Your task to perform on an android device: empty trash in the gmail app Image 0: 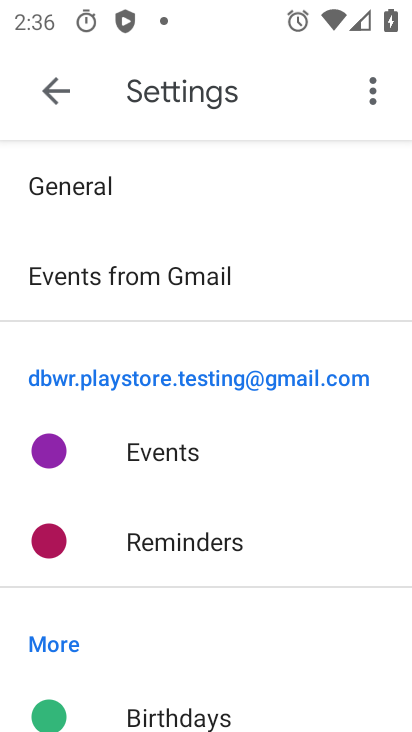
Step 0: press home button
Your task to perform on an android device: empty trash in the gmail app Image 1: 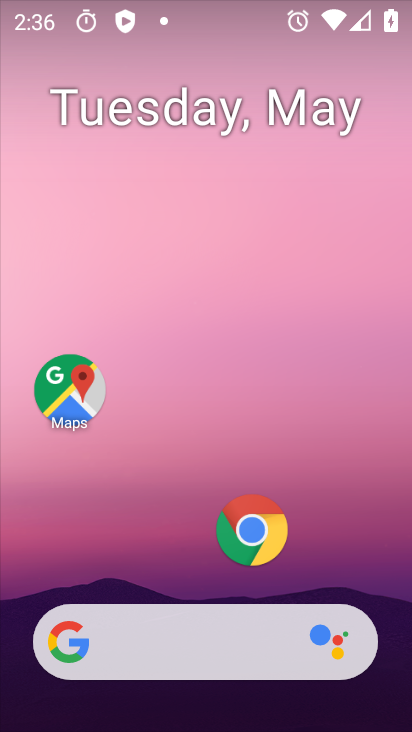
Step 1: drag from (205, 580) to (121, 17)
Your task to perform on an android device: empty trash in the gmail app Image 2: 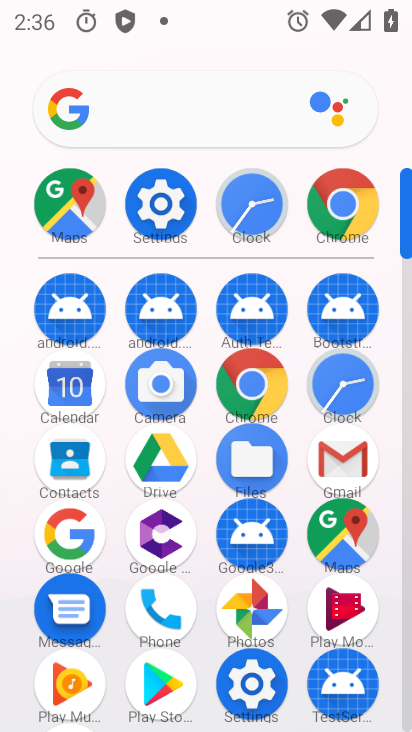
Step 2: click (339, 451)
Your task to perform on an android device: empty trash in the gmail app Image 3: 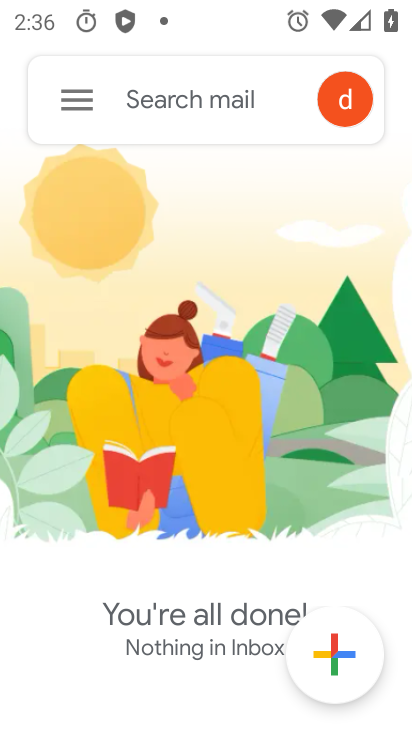
Step 3: click (63, 108)
Your task to perform on an android device: empty trash in the gmail app Image 4: 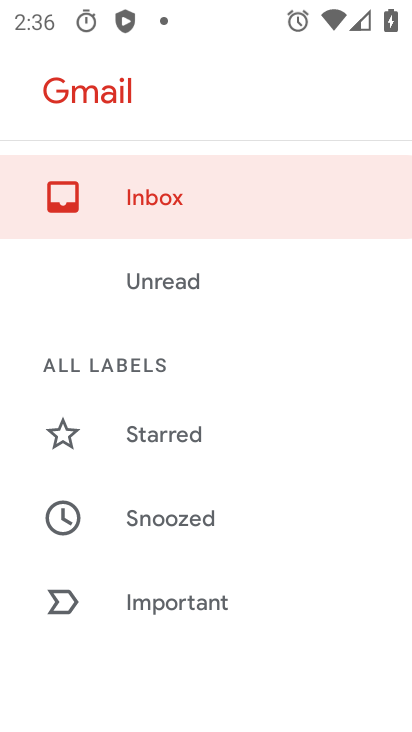
Step 4: drag from (137, 497) to (117, 77)
Your task to perform on an android device: empty trash in the gmail app Image 5: 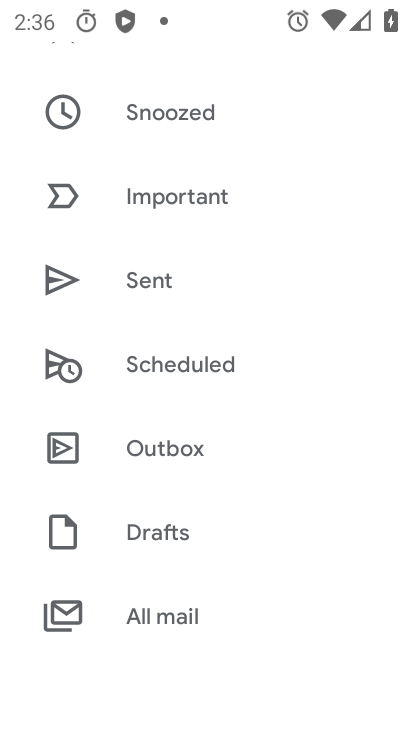
Step 5: drag from (185, 514) to (152, 3)
Your task to perform on an android device: empty trash in the gmail app Image 6: 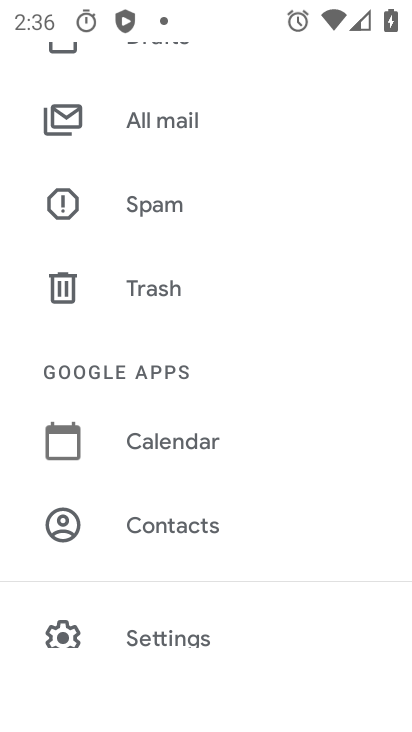
Step 6: click (149, 292)
Your task to perform on an android device: empty trash in the gmail app Image 7: 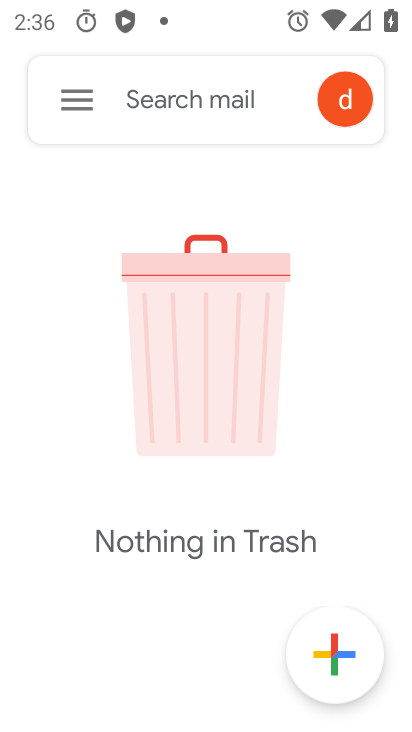
Step 7: task complete